Your task to perform on an android device: change the upload size in google photos Image 0: 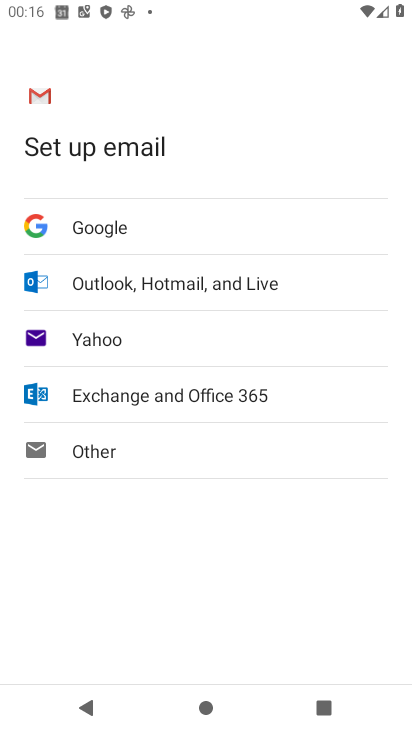
Step 0: press back button
Your task to perform on an android device: change the upload size in google photos Image 1: 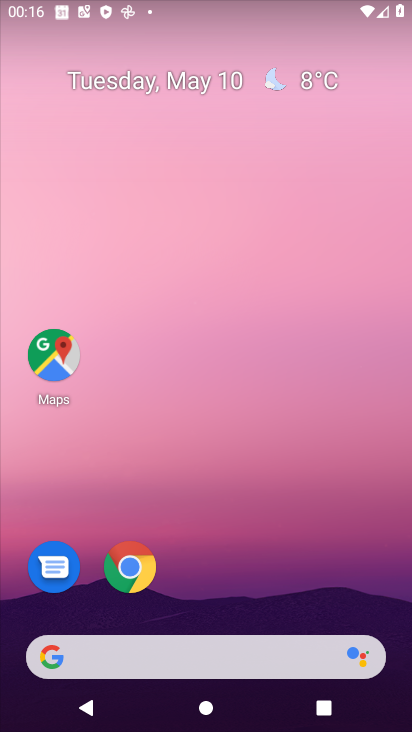
Step 1: drag from (245, 576) to (240, 83)
Your task to perform on an android device: change the upload size in google photos Image 2: 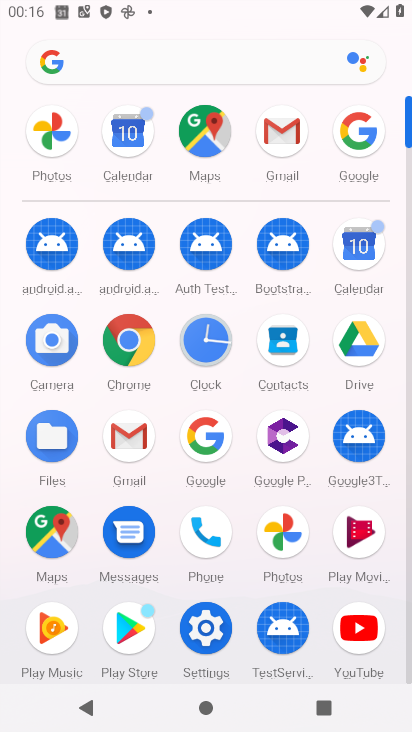
Step 2: click (50, 132)
Your task to perform on an android device: change the upload size in google photos Image 3: 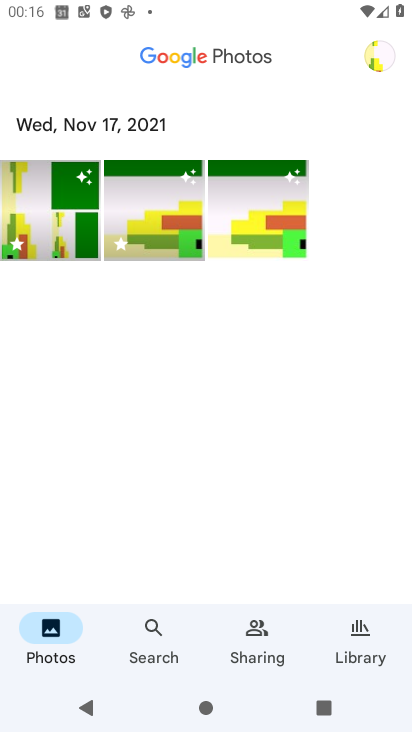
Step 3: click (387, 49)
Your task to perform on an android device: change the upload size in google photos Image 4: 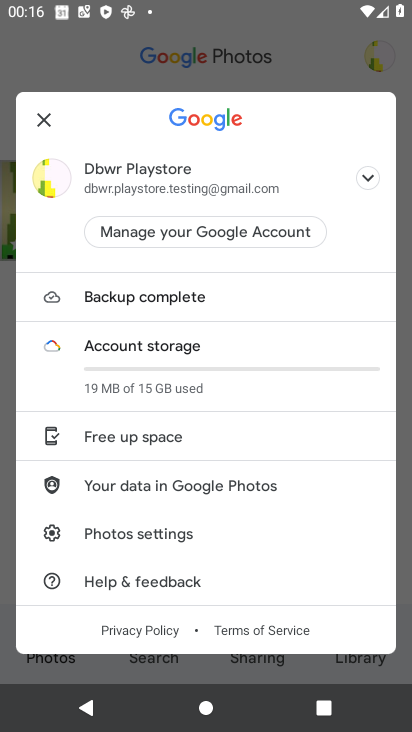
Step 4: click (150, 532)
Your task to perform on an android device: change the upload size in google photos Image 5: 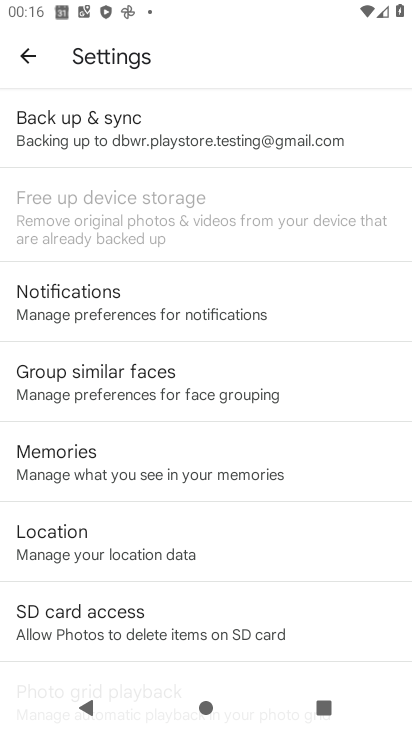
Step 5: click (136, 143)
Your task to perform on an android device: change the upload size in google photos Image 6: 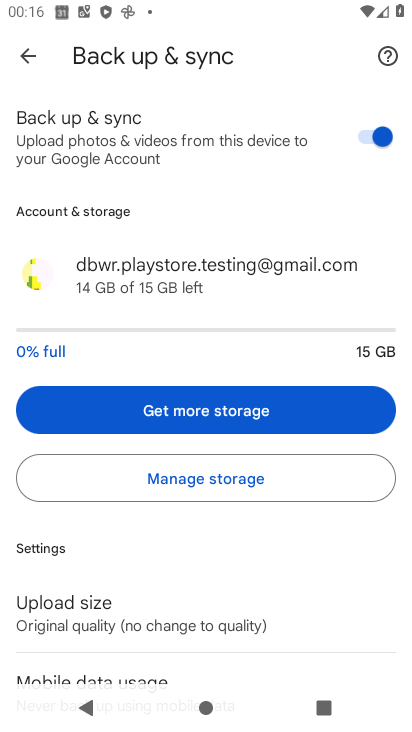
Step 6: click (123, 617)
Your task to perform on an android device: change the upload size in google photos Image 7: 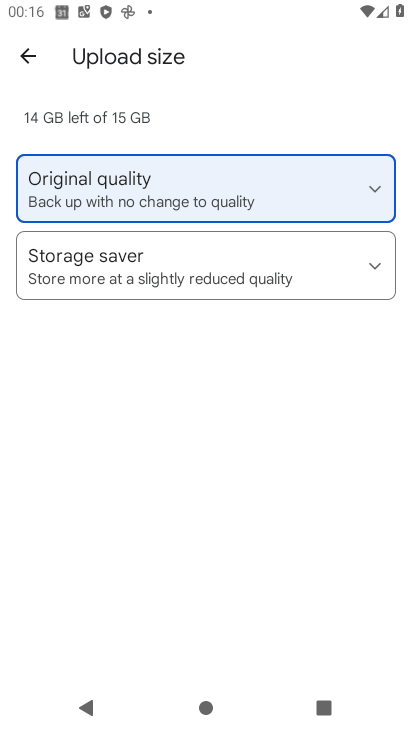
Step 7: click (78, 270)
Your task to perform on an android device: change the upload size in google photos Image 8: 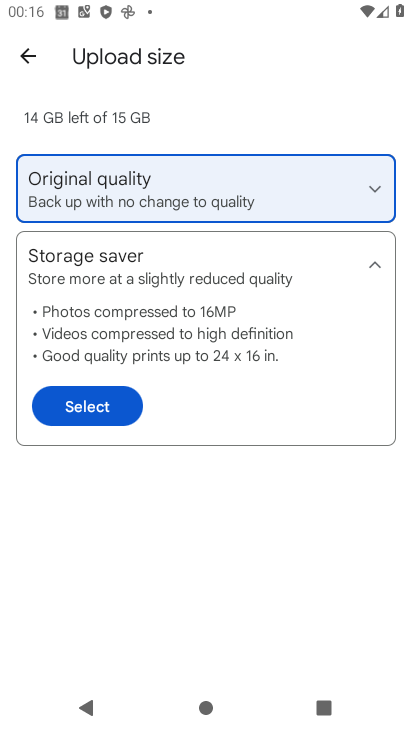
Step 8: click (96, 403)
Your task to perform on an android device: change the upload size in google photos Image 9: 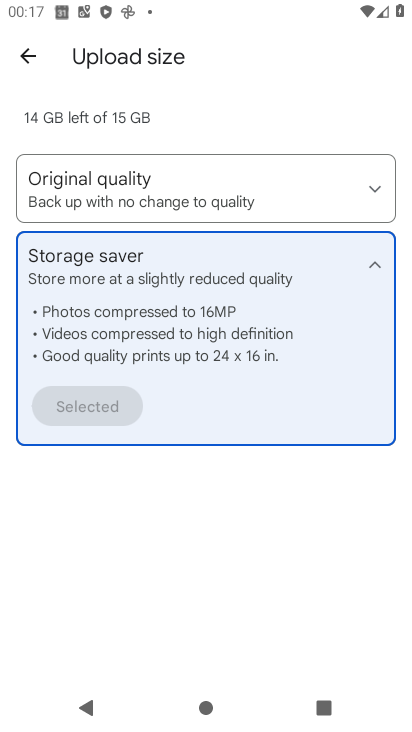
Step 9: task complete